Your task to perform on an android device: check storage Image 0: 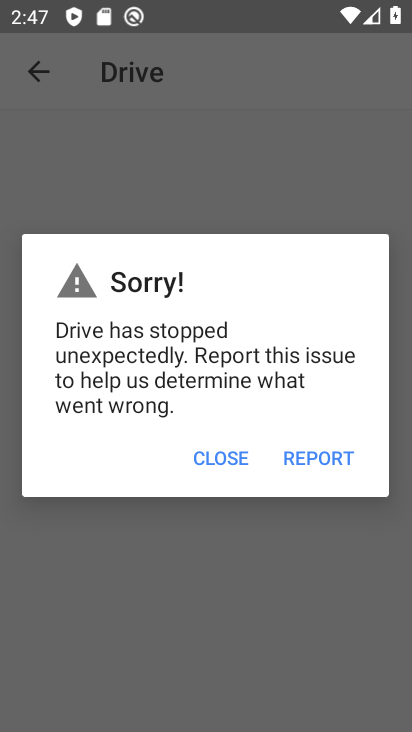
Step 0: press home button
Your task to perform on an android device: check storage Image 1: 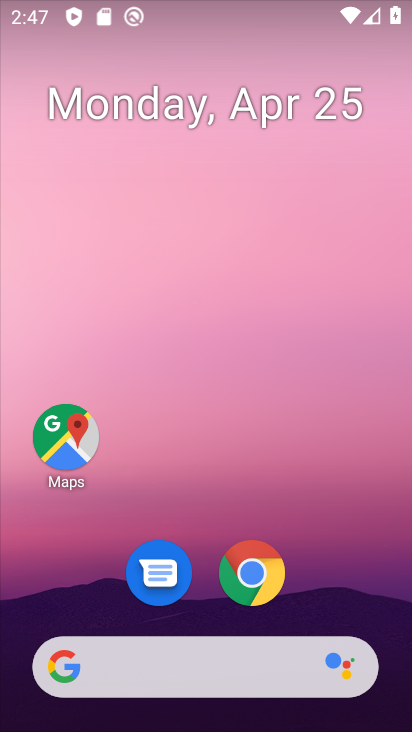
Step 1: drag from (340, 502) to (266, 1)
Your task to perform on an android device: check storage Image 2: 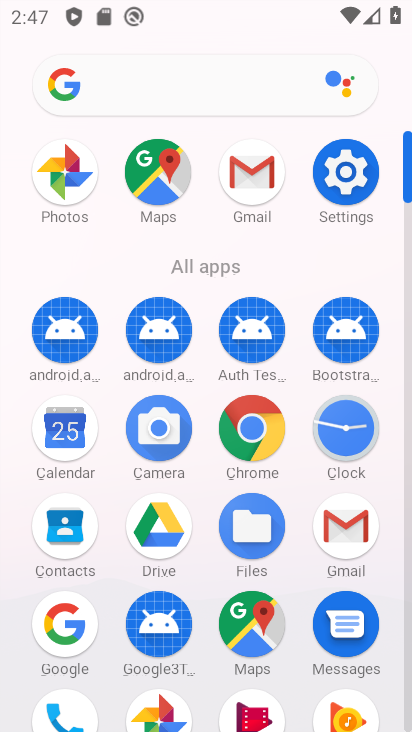
Step 2: click (348, 171)
Your task to perform on an android device: check storage Image 3: 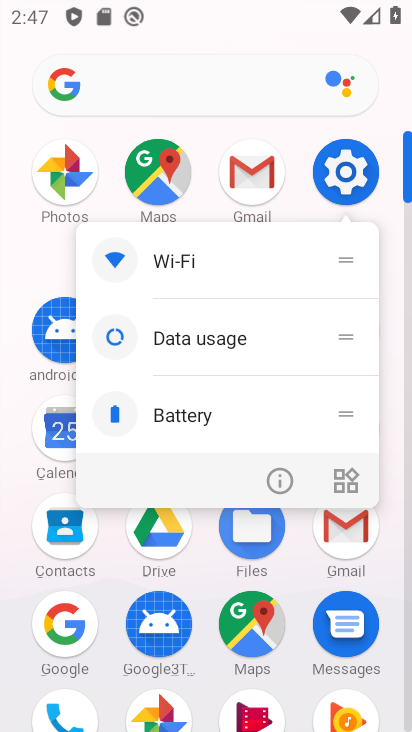
Step 3: click (336, 175)
Your task to perform on an android device: check storage Image 4: 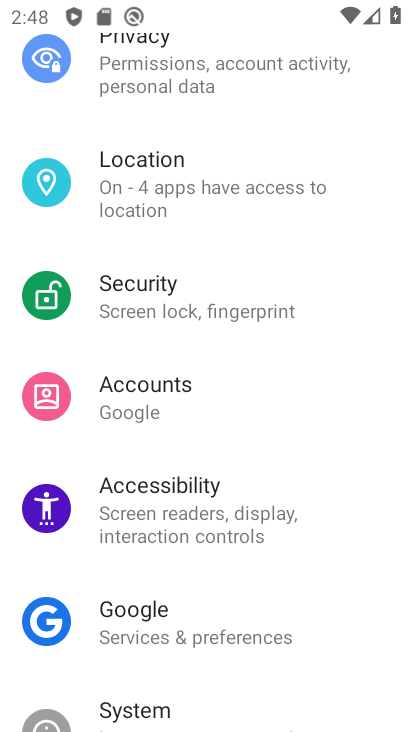
Step 4: drag from (153, 595) to (74, 232)
Your task to perform on an android device: check storage Image 5: 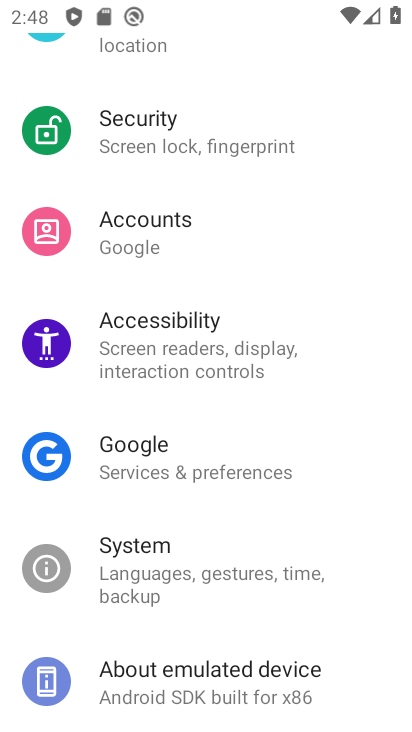
Step 5: drag from (190, 647) to (182, 315)
Your task to perform on an android device: check storage Image 6: 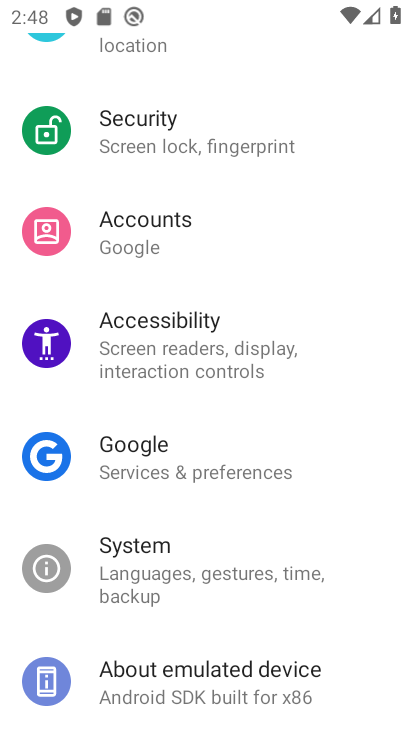
Step 6: drag from (161, 202) to (193, 623)
Your task to perform on an android device: check storage Image 7: 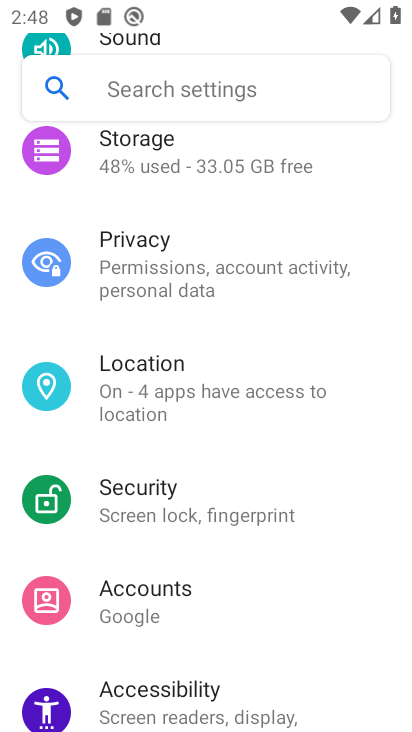
Step 7: click (128, 173)
Your task to perform on an android device: check storage Image 8: 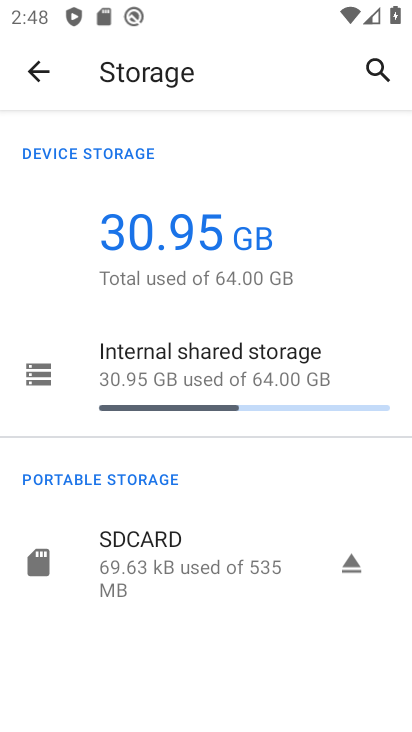
Step 8: task complete